Your task to perform on an android device: open sync settings in chrome Image 0: 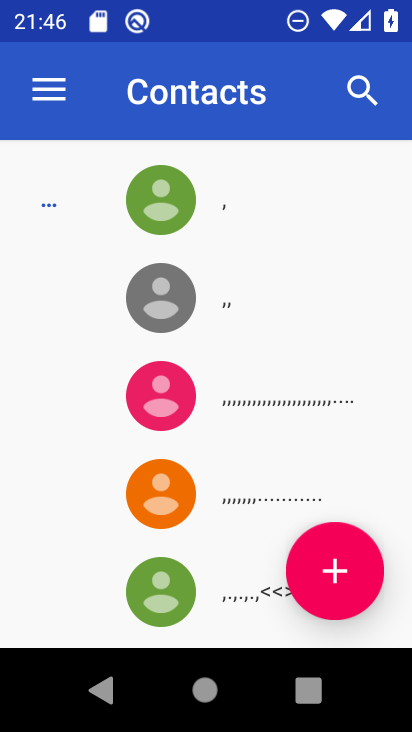
Step 0: press home button
Your task to perform on an android device: open sync settings in chrome Image 1: 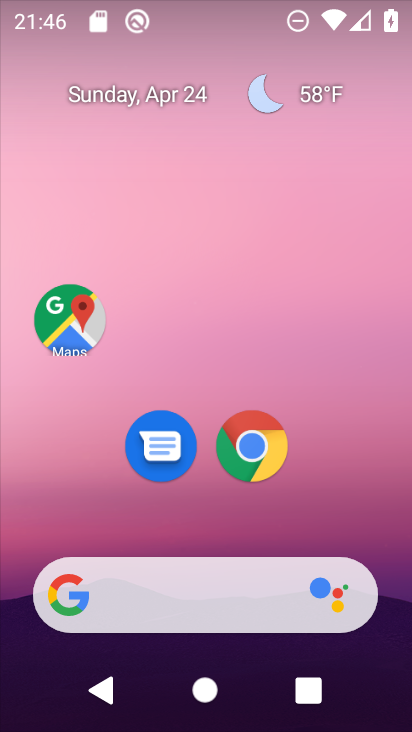
Step 1: drag from (153, 578) to (222, 77)
Your task to perform on an android device: open sync settings in chrome Image 2: 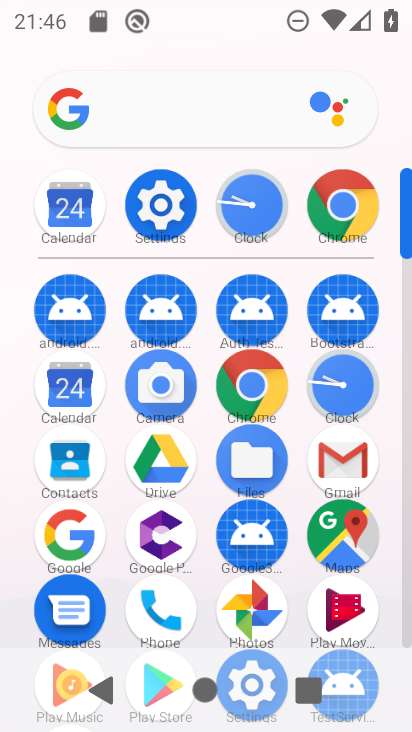
Step 2: click (343, 220)
Your task to perform on an android device: open sync settings in chrome Image 3: 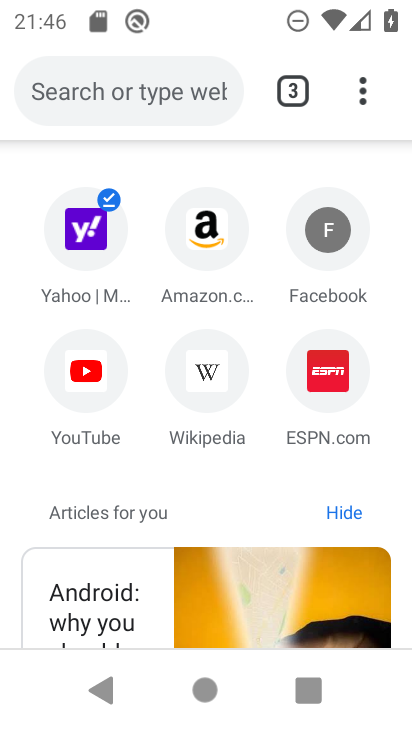
Step 3: drag from (360, 93) to (129, 473)
Your task to perform on an android device: open sync settings in chrome Image 4: 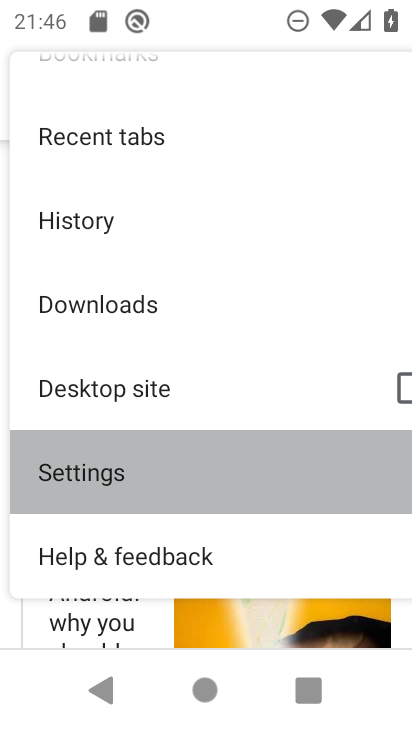
Step 4: click (129, 473)
Your task to perform on an android device: open sync settings in chrome Image 5: 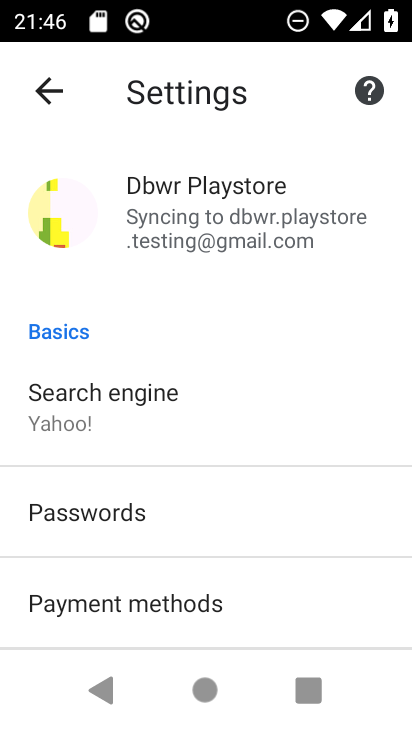
Step 5: click (213, 222)
Your task to perform on an android device: open sync settings in chrome Image 6: 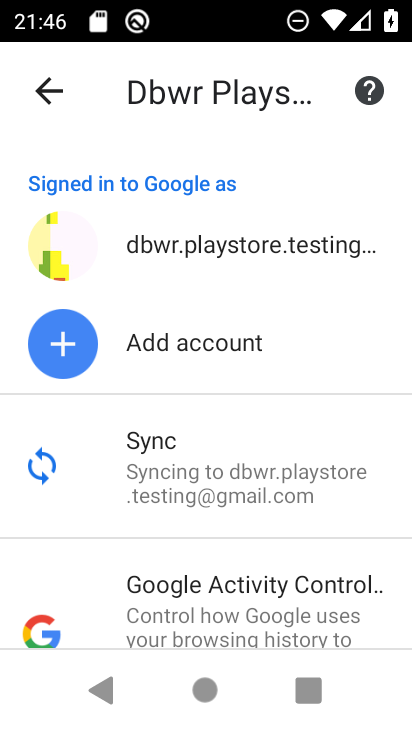
Step 6: click (185, 477)
Your task to perform on an android device: open sync settings in chrome Image 7: 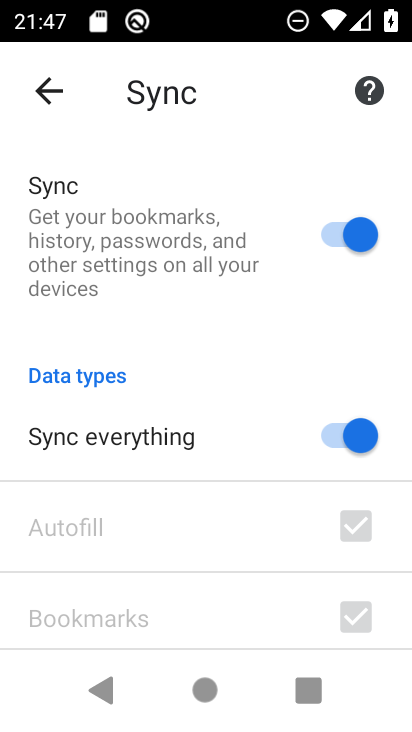
Step 7: task complete